Your task to perform on an android device: change the clock display to show seconds Image 0: 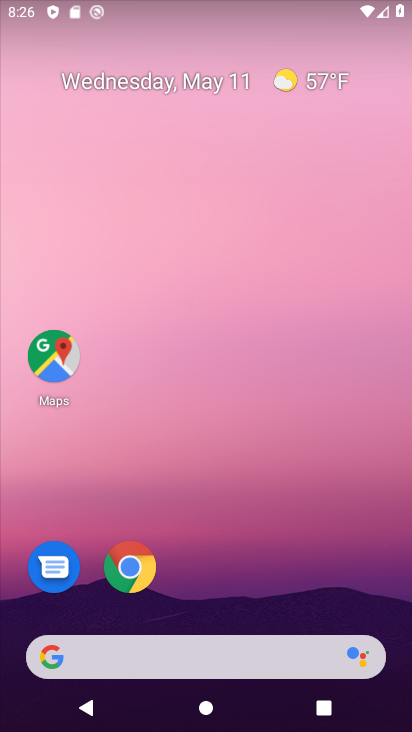
Step 0: drag from (215, 492) to (159, 68)
Your task to perform on an android device: change the clock display to show seconds Image 1: 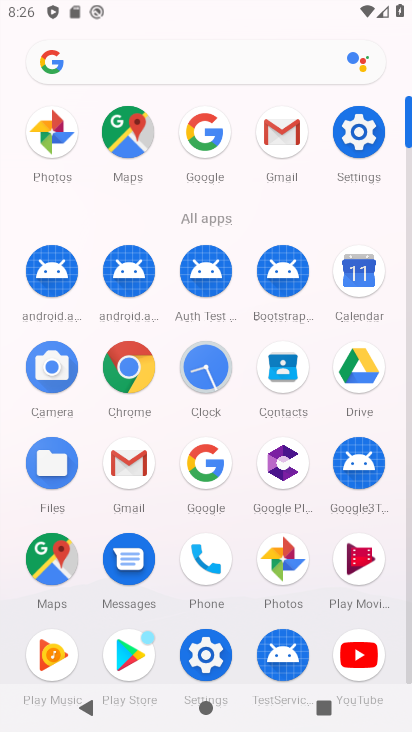
Step 1: click (206, 369)
Your task to perform on an android device: change the clock display to show seconds Image 2: 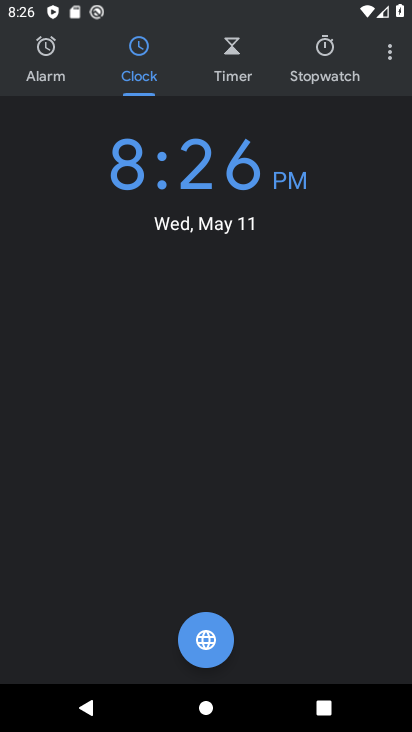
Step 2: click (382, 52)
Your task to perform on an android device: change the clock display to show seconds Image 3: 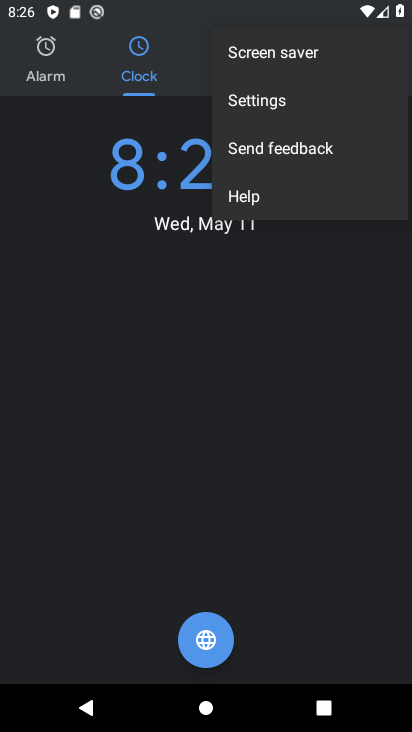
Step 3: click (261, 93)
Your task to perform on an android device: change the clock display to show seconds Image 4: 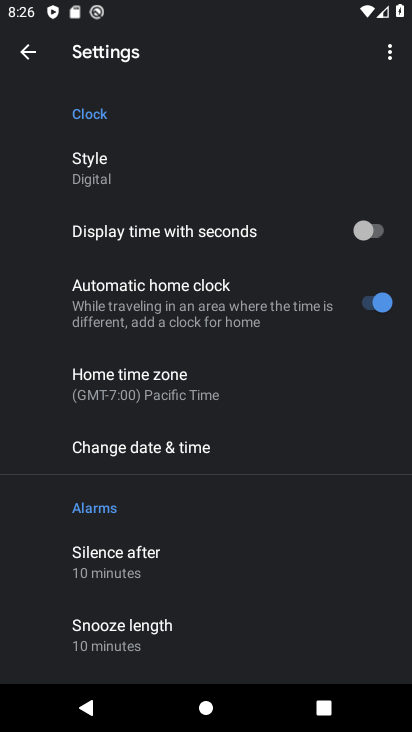
Step 4: click (363, 231)
Your task to perform on an android device: change the clock display to show seconds Image 5: 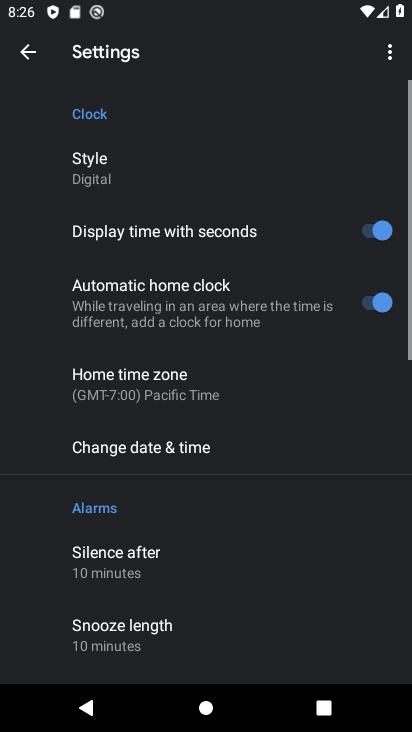
Step 5: task complete